Your task to perform on an android device: Search for Mexican restaurants on Maps Image 0: 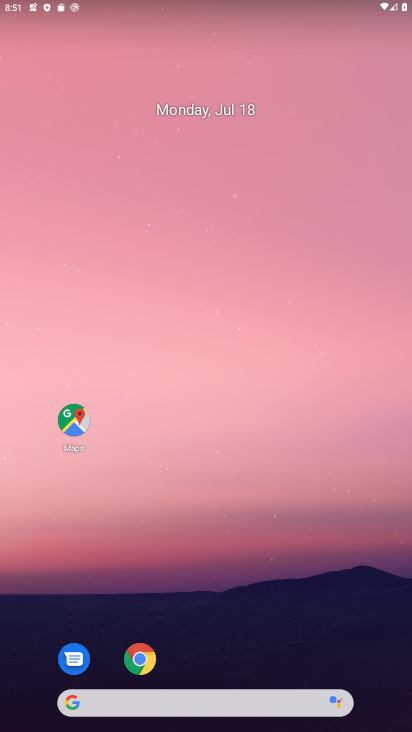
Step 0: click (363, 4)
Your task to perform on an android device: Search for Mexican restaurants on Maps Image 1: 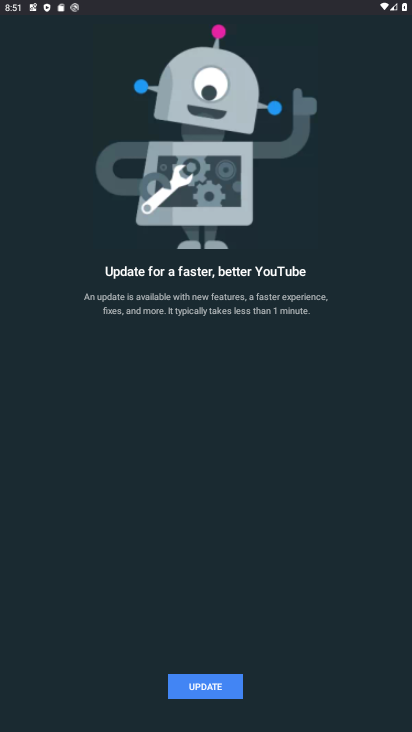
Step 1: press home button
Your task to perform on an android device: Search for Mexican restaurants on Maps Image 2: 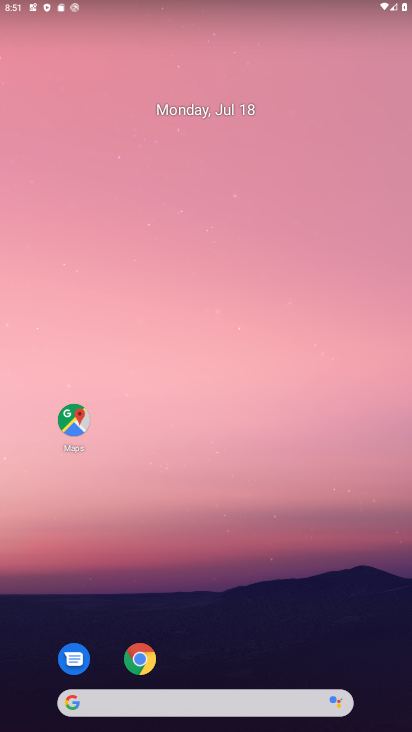
Step 2: drag from (254, 667) to (328, 2)
Your task to perform on an android device: Search for Mexican restaurants on Maps Image 3: 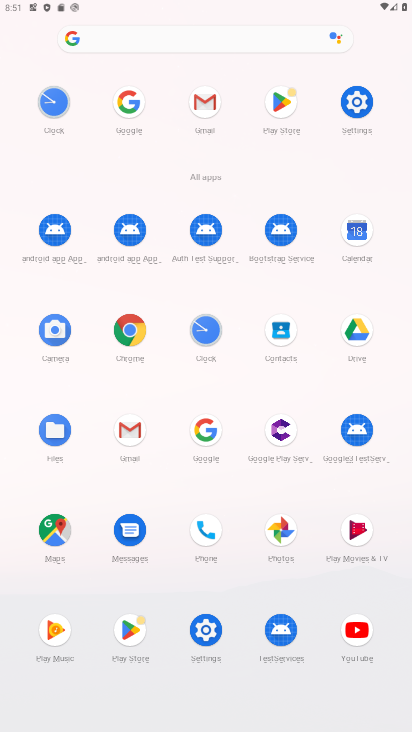
Step 3: click (57, 531)
Your task to perform on an android device: Search for Mexican restaurants on Maps Image 4: 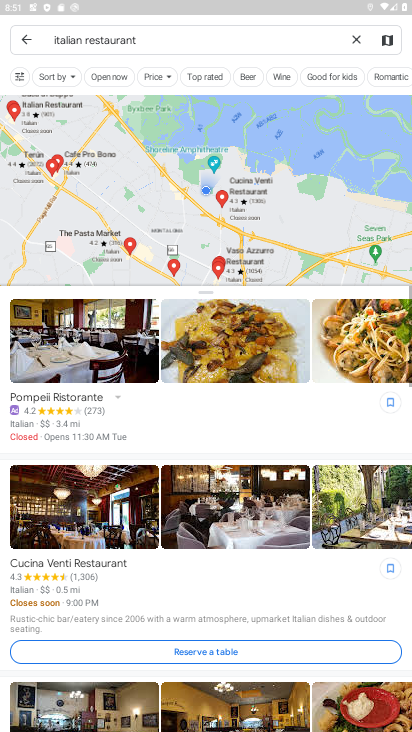
Step 4: click (364, 42)
Your task to perform on an android device: Search for Mexican restaurants on Maps Image 5: 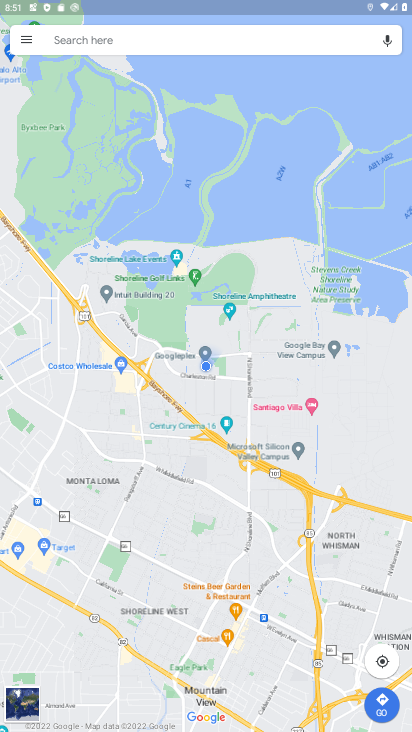
Step 5: click (235, 33)
Your task to perform on an android device: Search for Mexican restaurants on Maps Image 6: 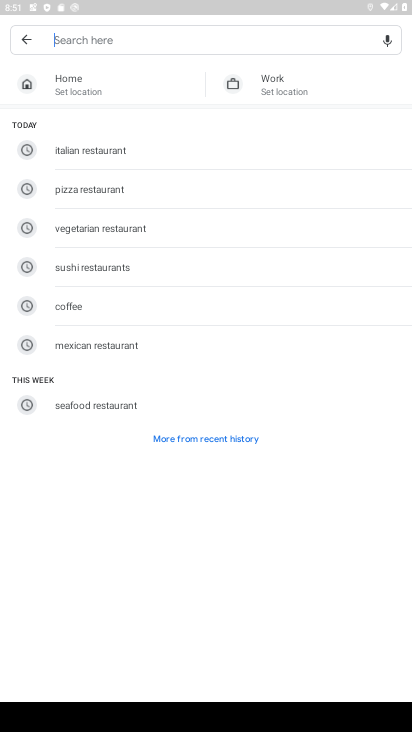
Step 6: click (113, 347)
Your task to perform on an android device: Search for Mexican restaurants on Maps Image 7: 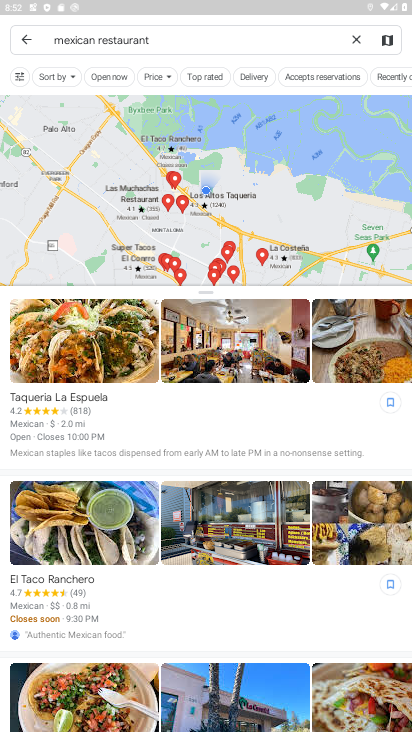
Step 7: task complete